Your task to perform on an android device: check out phone information Image 0: 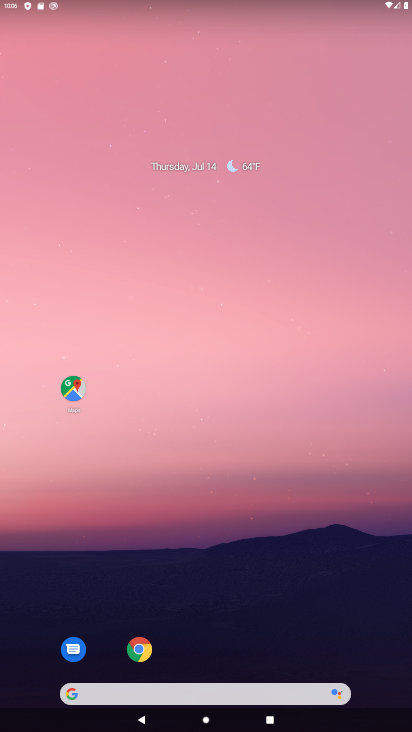
Step 0: drag from (226, 649) to (307, 105)
Your task to perform on an android device: check out phone information Image 1: 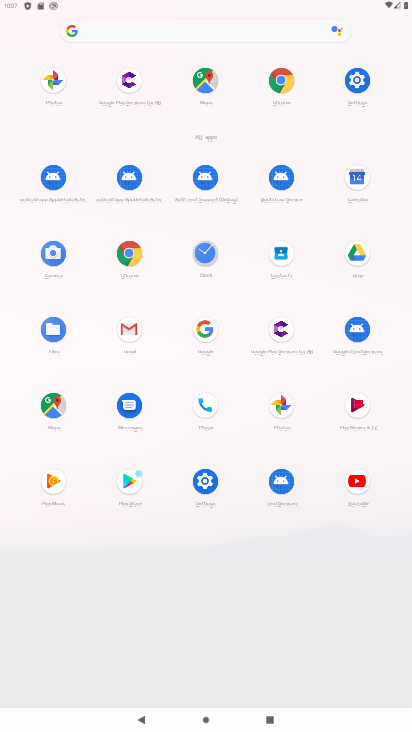
Step 1: click (211, 396)
Your task to perform on an android device: check out phone information Image 2: 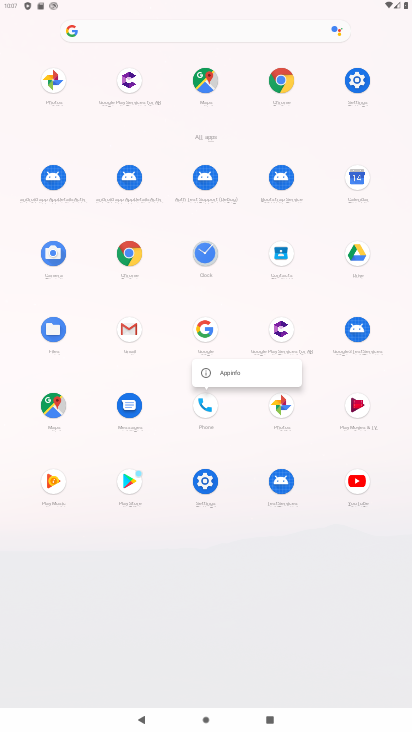
Step 2: click (232, 372)
Your task to perform on an android device: check out phone information Image 3: 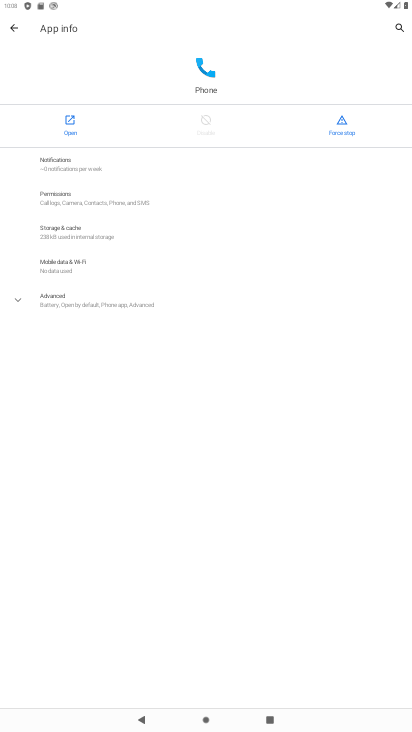
Step 3: task complete